Your task to perform on an android device: check out phone information Image 0: 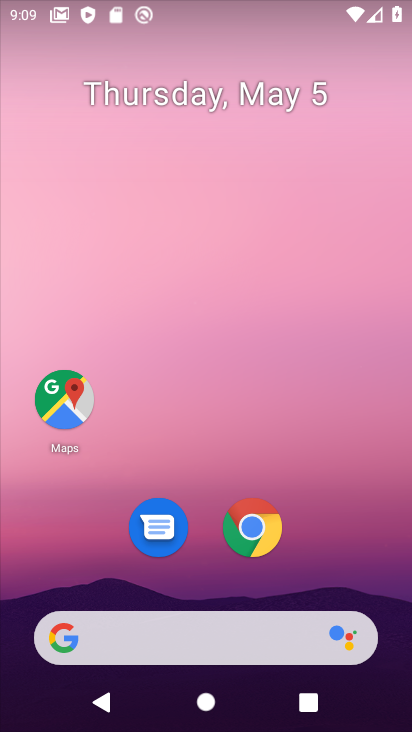
Step 0: drag from (248, 371) to (300, 220)
Your task to perform on an android device: check out phone information Image 1: 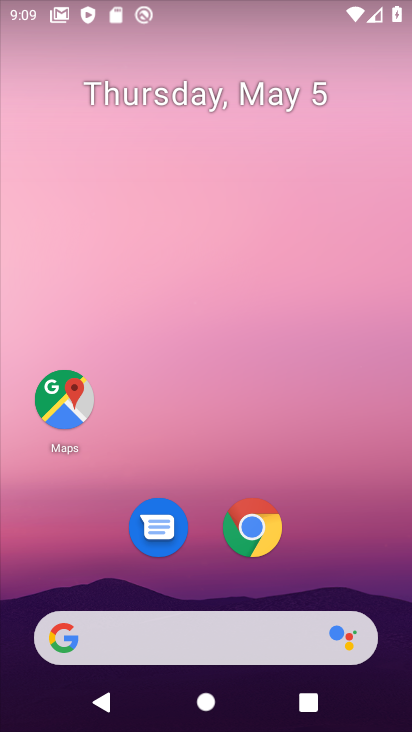
Step 1: drag from (186, 595) to (304, 77)
Your task to perform on an android device: check out phone information Image 2: 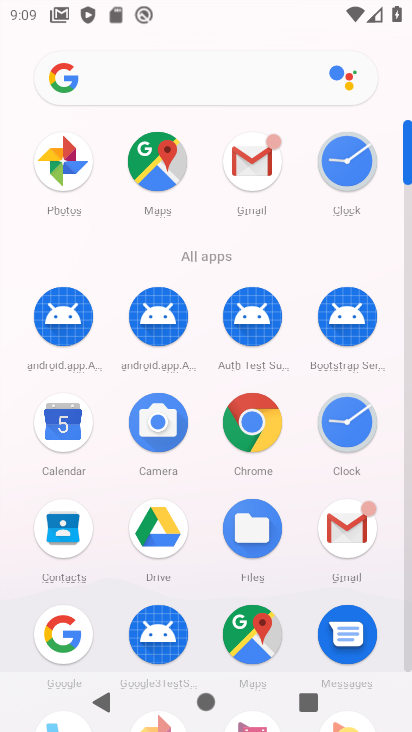
Step 2: drag from (207, 663) to (246, 425)
Your task to perform on an android device: check out phone information Image 3: 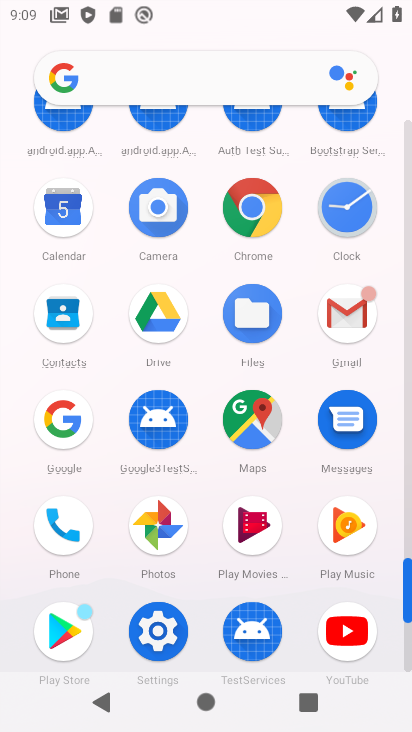
Step 3: click (74, 525)
Your task to perform on an android device: check out phone information Image 4: 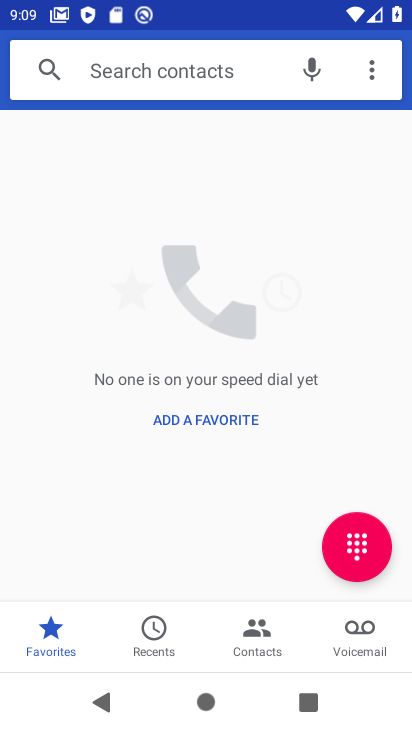
Step 4: click (370, 73)
Your task to perform on an android device: check out phone information Image 5: 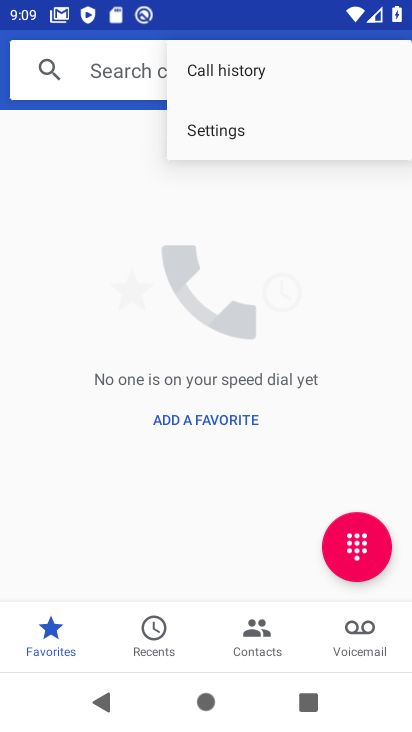
Step 5: click (270, 137)
Your task to perform on an android device: check out phone information Image 6: 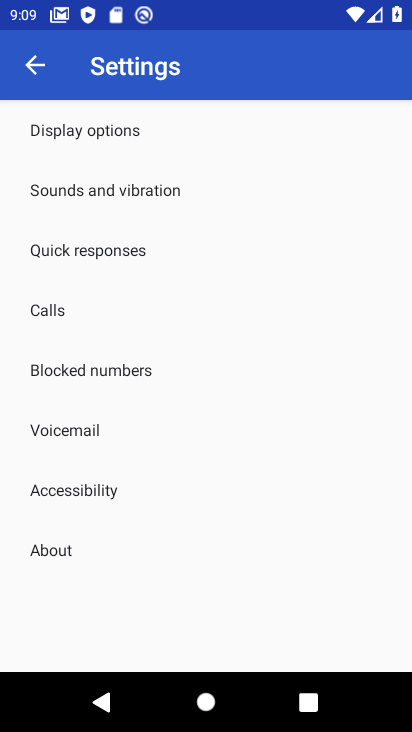
Step 6: task complete